Your task to perform on an android device: Open eBay Image 0: 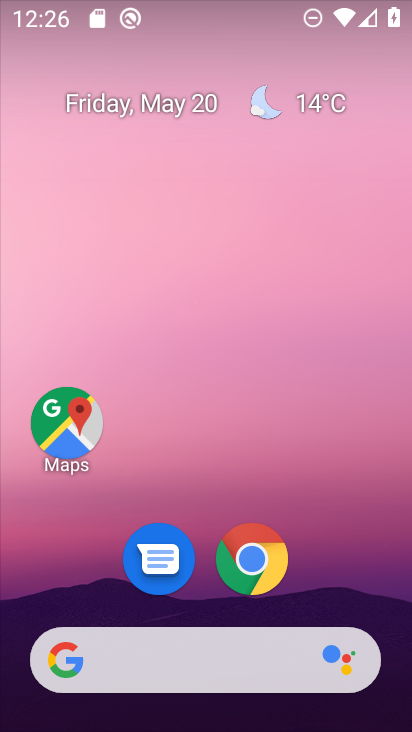
Step 0: click (278, 569)
Your task to perform on an android device: Open eBay Image 1: 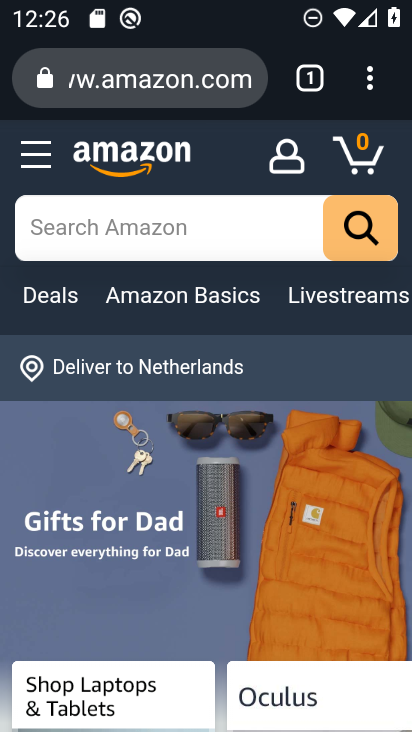
Step 1: click (120, 92)
Your task to perform on an android device: Open eBay Image 2: 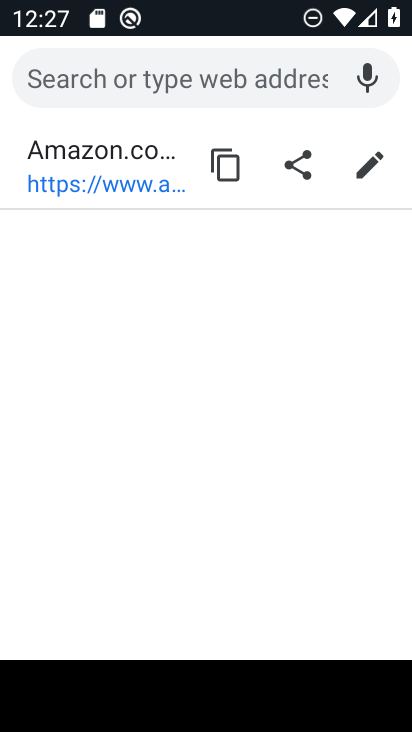
Step 2: type "ebay.com"
Your task to perform on an android device: Open eBay Image 3: 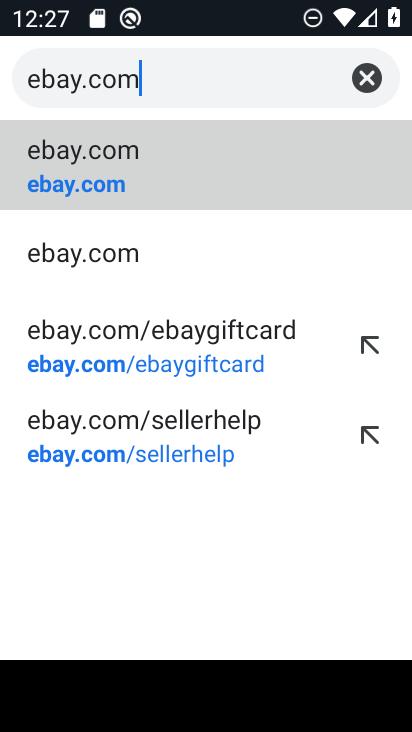
Step 3: click (137, 162)
Your task to perform on an android device: Open eBay Image 4: 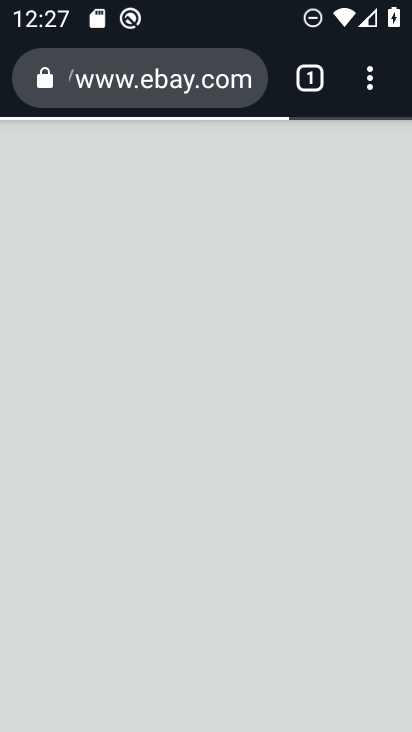
Step 4: task complete